Your task to perform on an android device: Open my contact list Image 0: 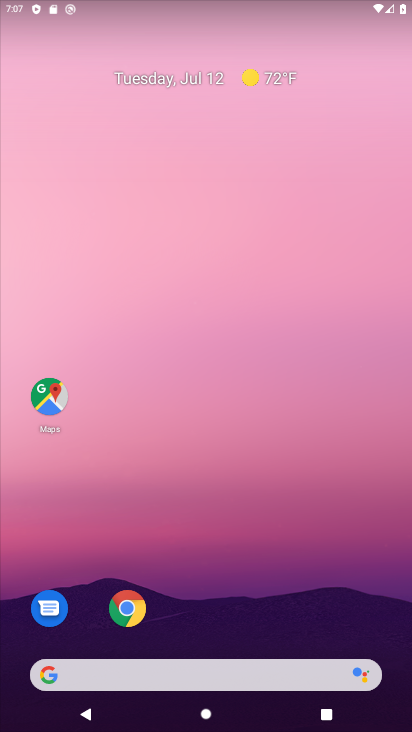
Step 0: drag from (242, 557) to (200, 80)
Your task to perform on an android device: Open my contact list Image 1: 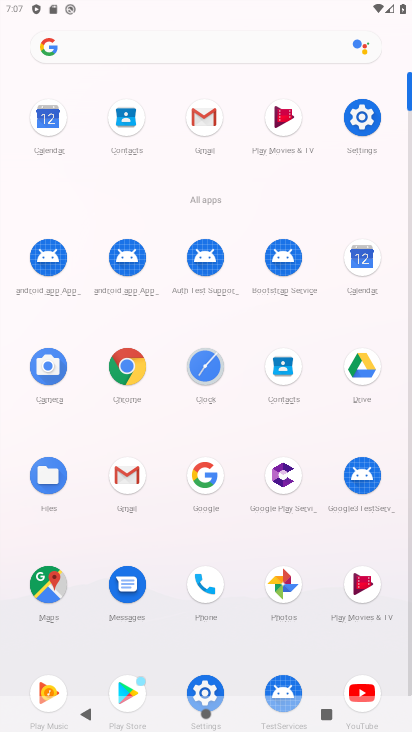
Step 1: click (281, 369)
Your task to perform on an android device: Open my contact list Image 2: 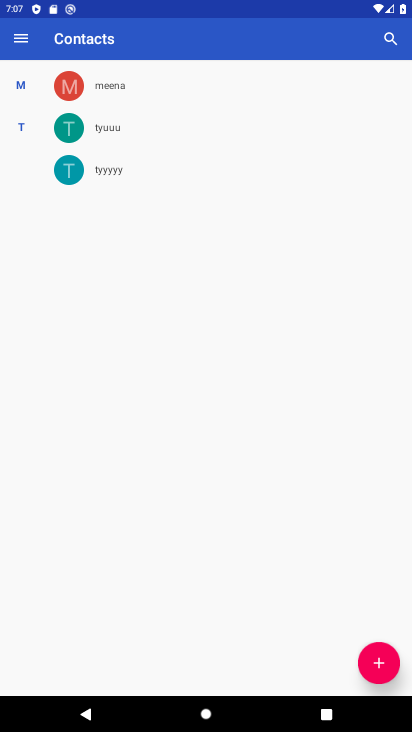
Step 2: task complete